Your task to perform on an android device: Open location settings Image 0: 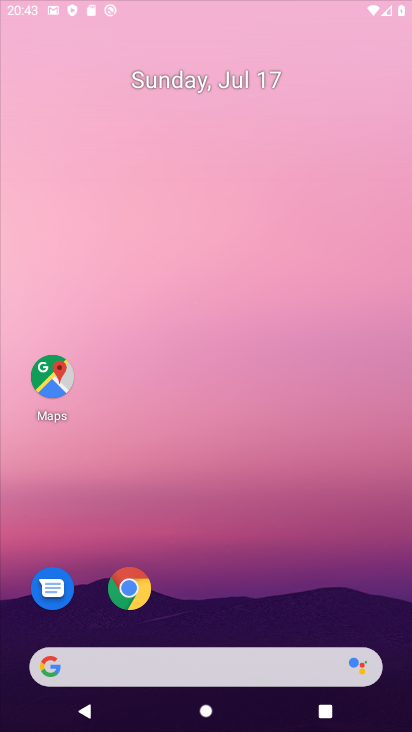
Step 0: press home button
Your task to perform on an android device: Open location settings Image 1: 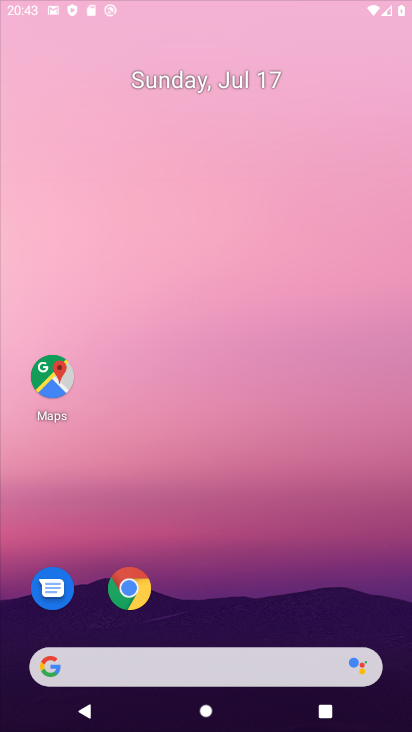
Step 1: click (202, 268)
Your task to perform on an android device: Open location settings Image 2: 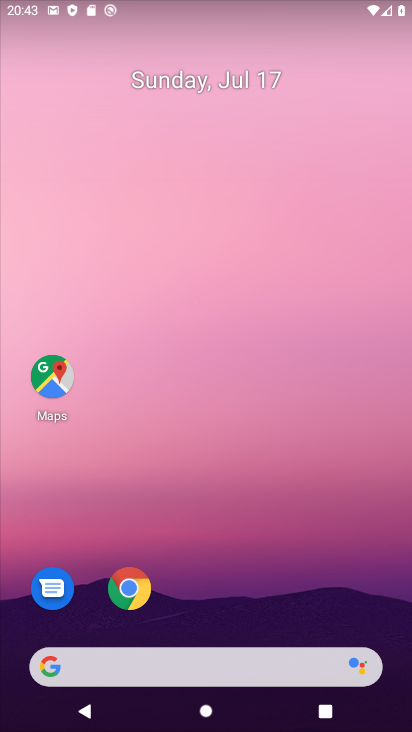
Step 2: drag from (247, 620) to (340, 14)
Your task to perform on an android device: Open location settings Image 3: 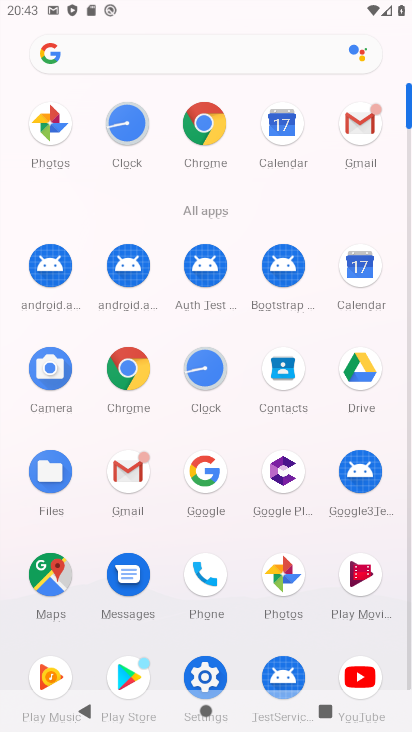
Step 3: click (206, 667)
Your task to perform on an android device: Open location settings Image 4: 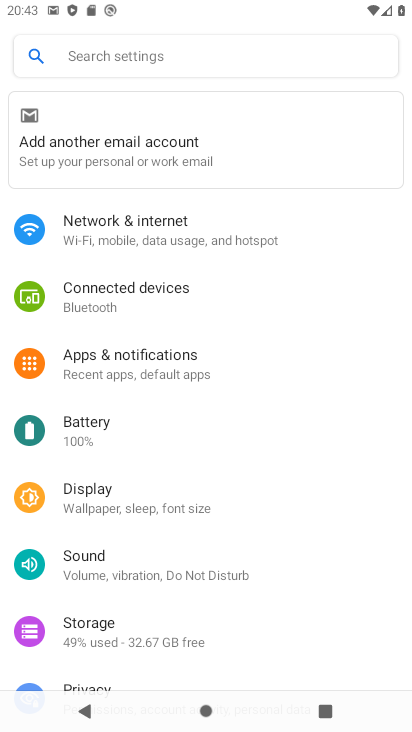
Step 4: drag from (102, 679) to (177, 423)
Your task to perform on an android device: Open location settings Image 5: 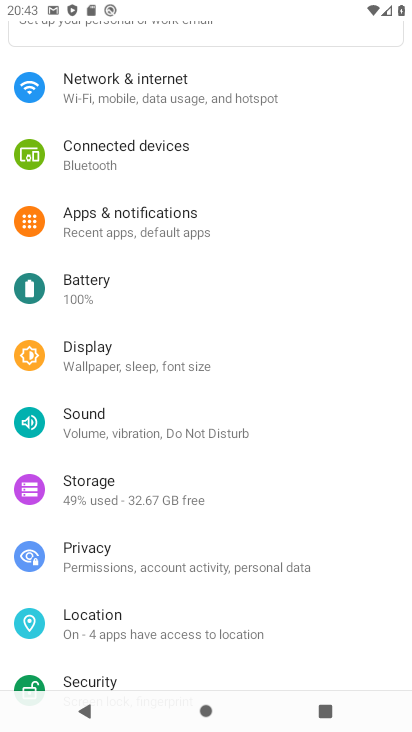
Step 5: click (80, 624)
Your task to perform on an android device: Open location settings Image 6: 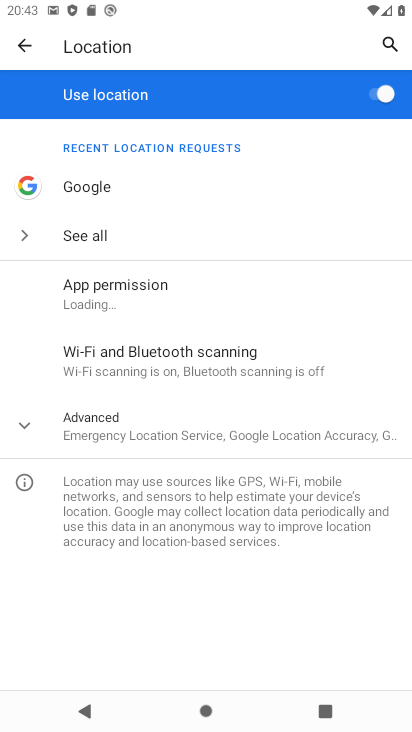
Step 6: task complete